Your task to perform on an android device: Go to eBay Image 0: 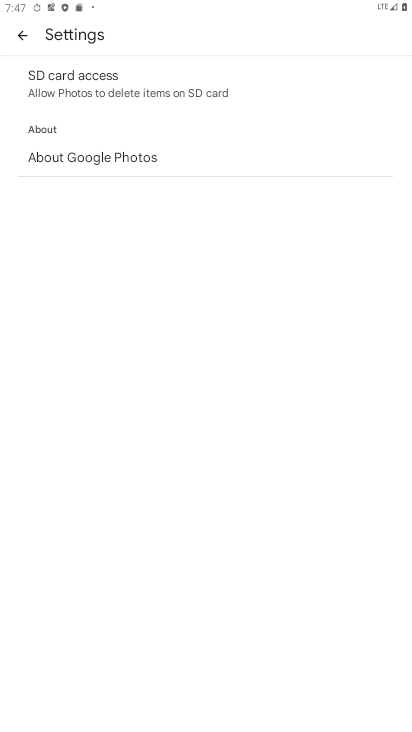
Step 0: press home button
Your task to perform on an android device: Go to eBay Image 1: 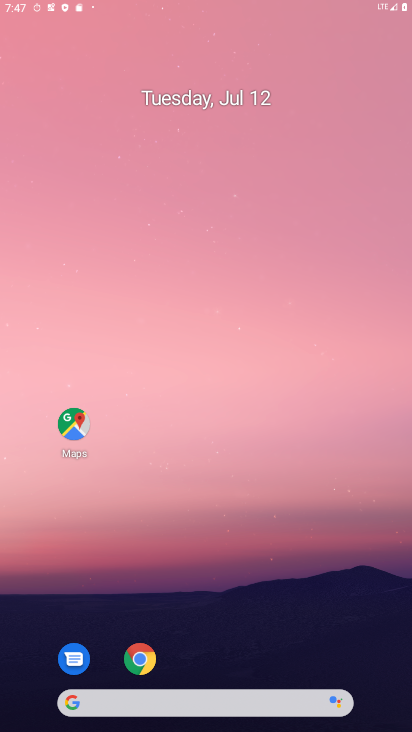
Step 1: drag from (330, 106) to (30, 139)
Your task to perform on an android device: Go to eBay Image 2: 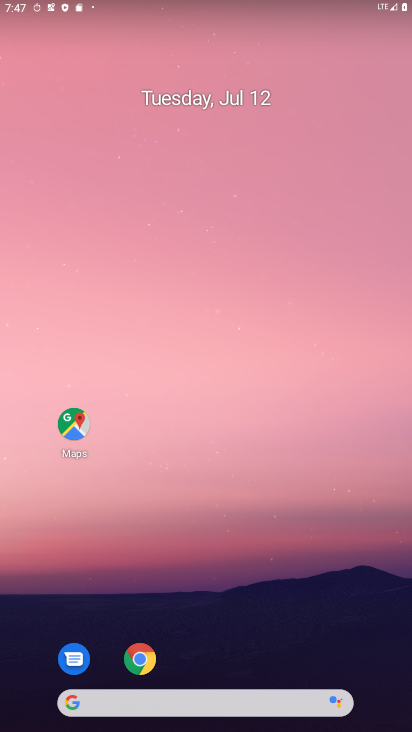
Step 2: drag from (376, 679) to (199, 8)
Your task to perform on an android device: Go to eBay Image 3: 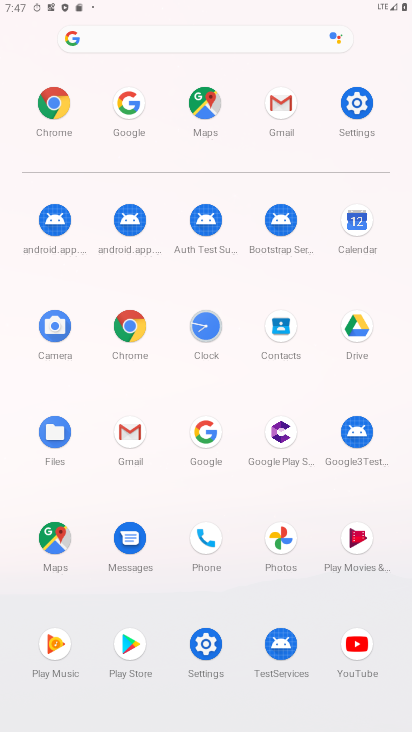
Step 3: click (201, 437)
Your task to perform on an android device: Go to eBay Image 4: 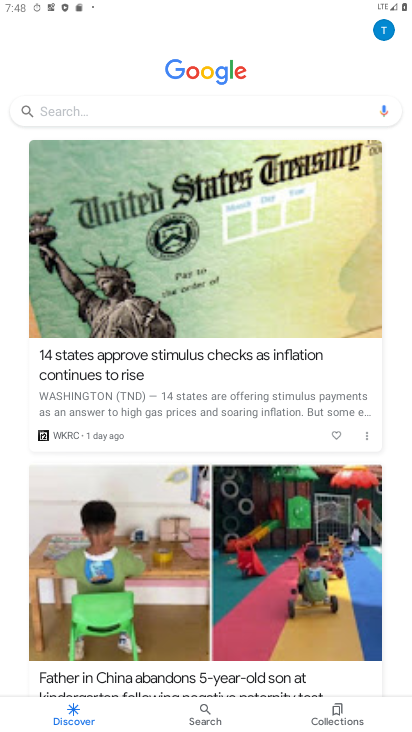
Step 4: click (88, 107)
Your task to perform on an android device: Go to eBay Image 5: 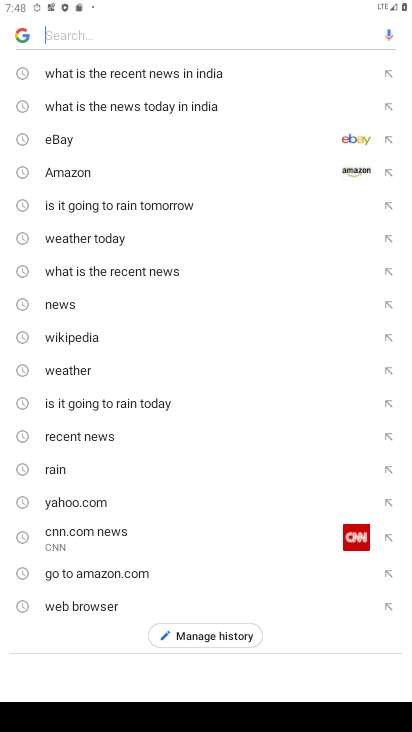
Step 5: click (45, 146)
Your task to perform on an android device: Go to eBay Image 6: 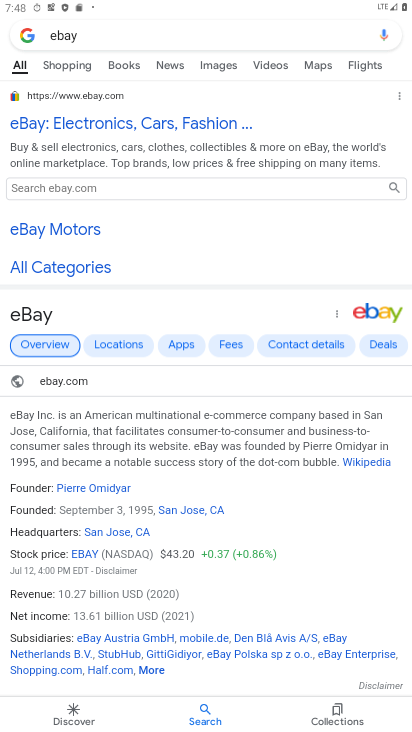
Step 6: task complete